Your task to perform on an android device: toggle wifi Image 0: 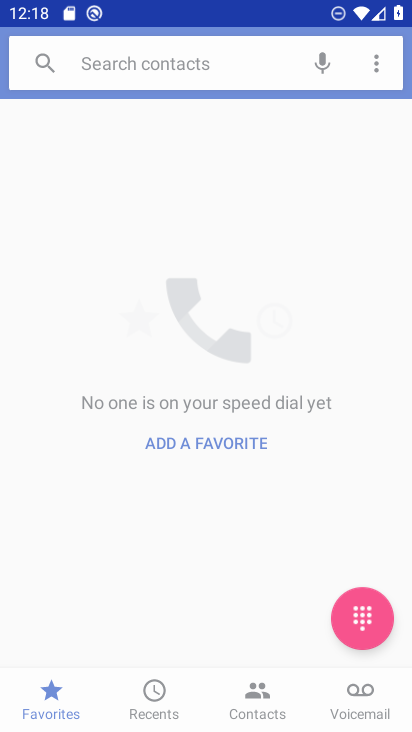
Step 0: drag from (216, 625) to (240, 119)
Your task to perform on an android device: toggle wifi Image 1: 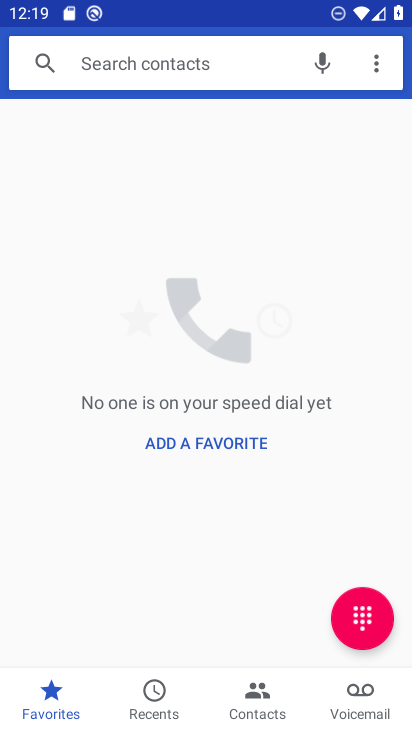
Step 1: press home button
Your task to perform on an android device: toggle wifi Image 2: 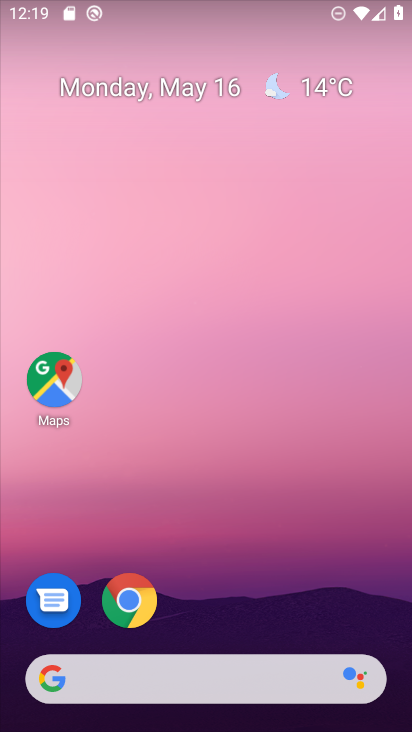
Step 2: drag from (219, 636) to (265, 116)
Your task to perform on an android device: toggle wifi Image 3: 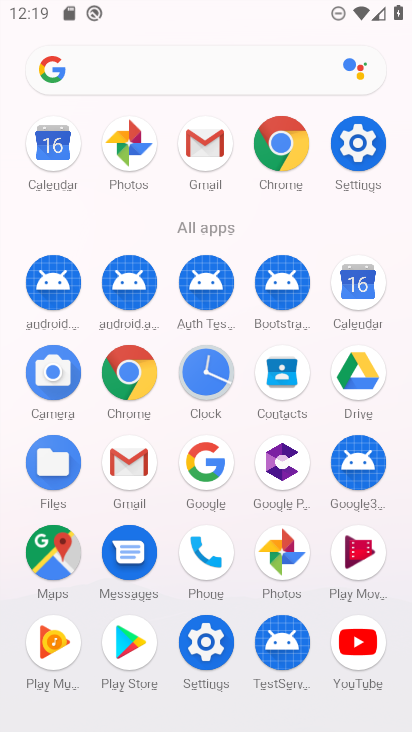
Step 3: click (352, 137)
Your task to perform on an android device: toggle wifi Image 4: 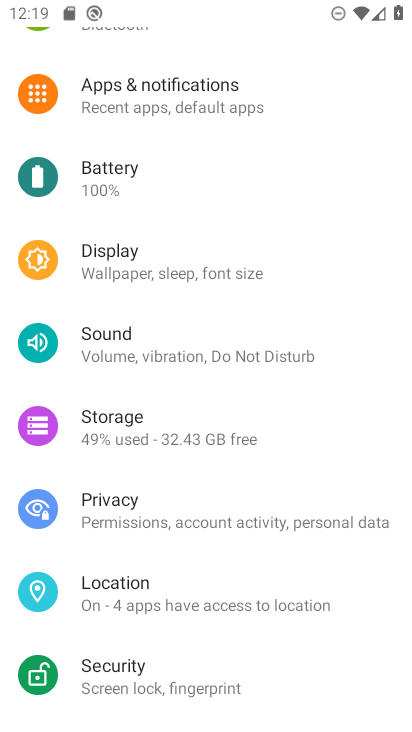
Step 4: drag from (200, 151) to (202, 628)
Your task to perform on an android device: toggle wifi Image 5: 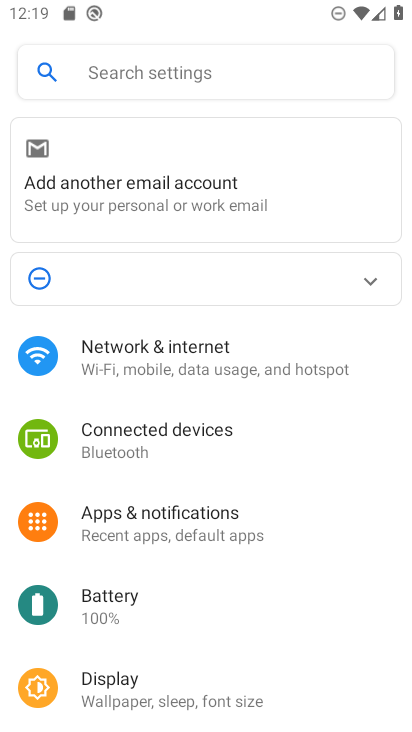
Step 5: click (237, 342)
Your task to perform on an android device: toggle wifi Image 6: 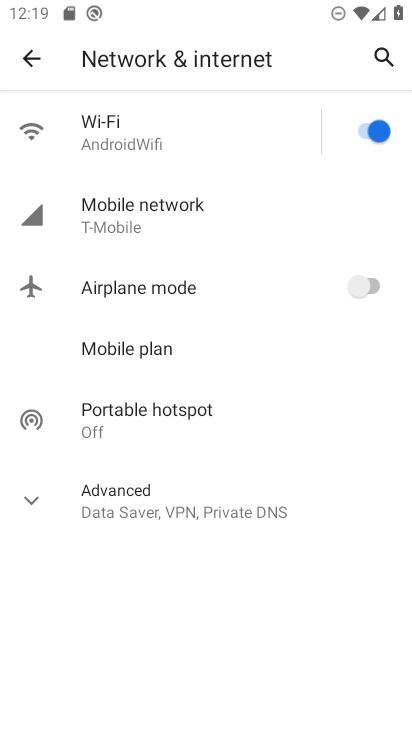
Step 6: click (196, 136)
Your task to perform on an android device: toggle wifi Image 7: 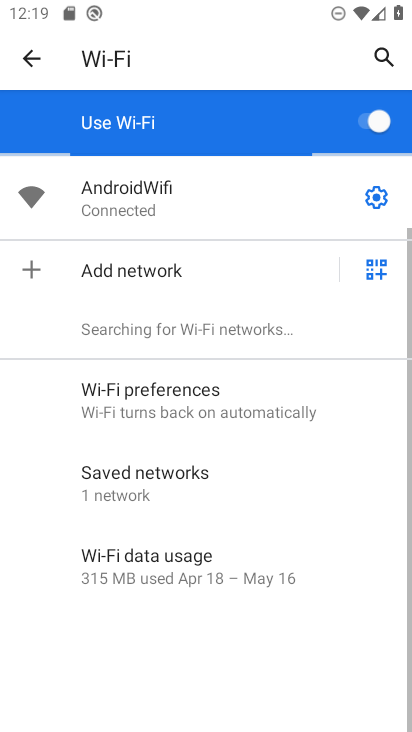
Step 7: task complete